Your task to perform on an android device: Open settings Image 0: 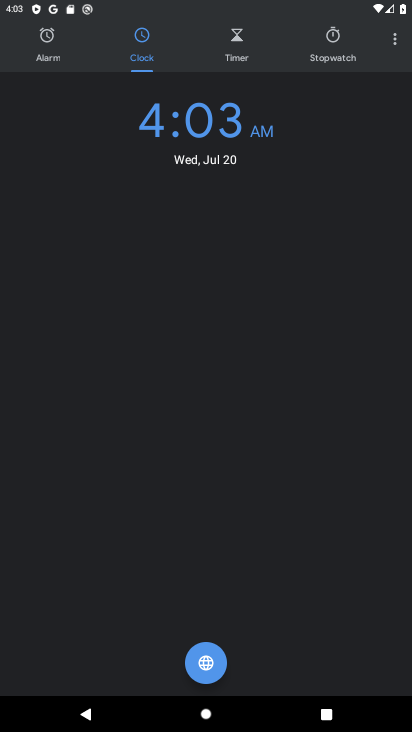
Step 0: press home button
Your task to perform on an android device: Open settings Image 1: 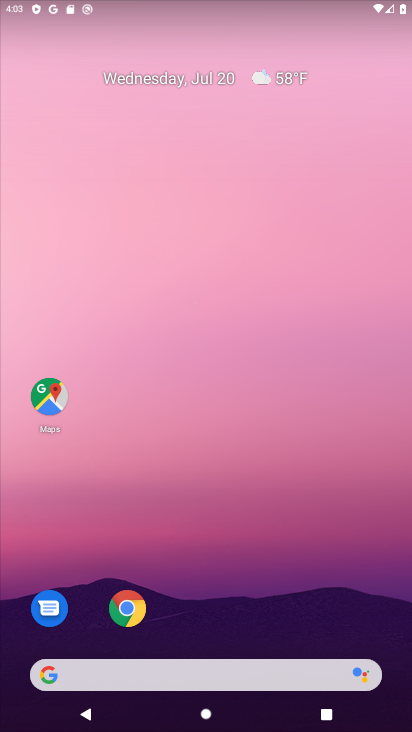
Step 1: drag from (197, 616) to (253, 39)
Your task to perform on an android device: Open settings Image 2: 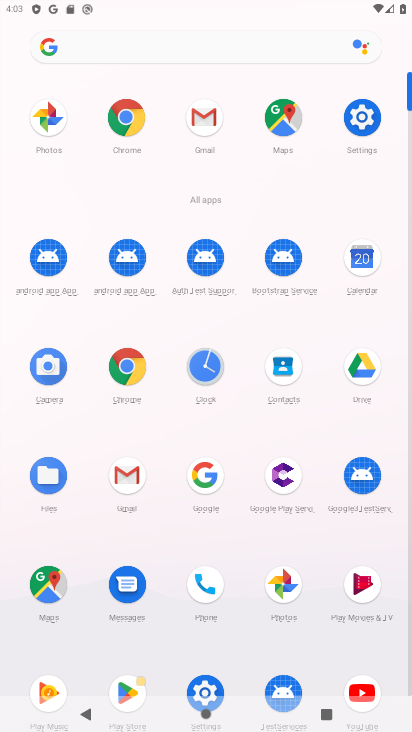
Step 2: drag from (185, 640) to (215, 370)
Your task to perform on an android device: Open settings Image 3: 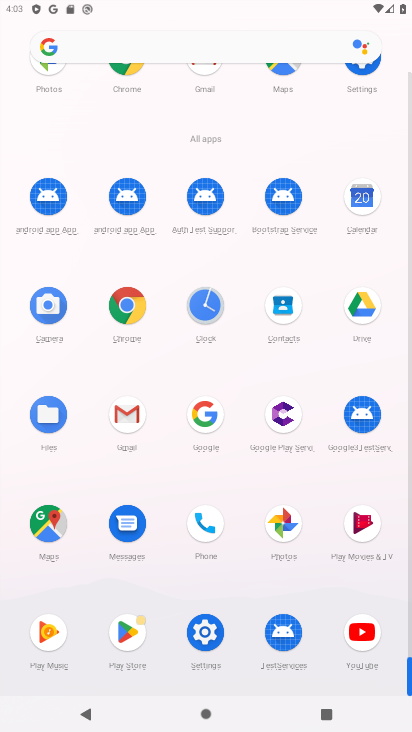
Step 3: click (209, 638)
Your task to perform on an android device: Open settings Image 4: 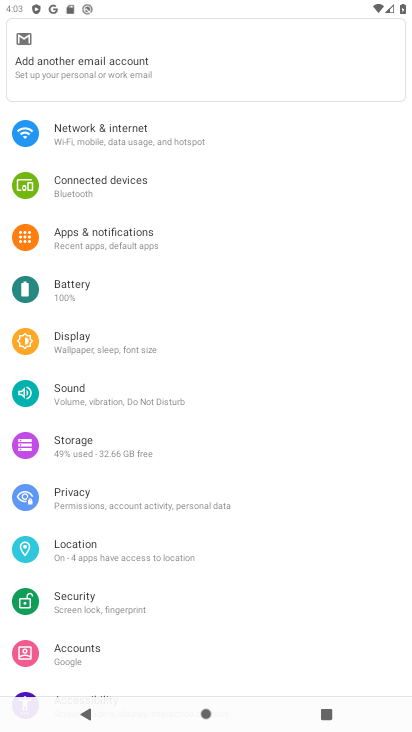
Step 4: task complete